Your task to perform on an android device: Go to Reddit.com Image 0: 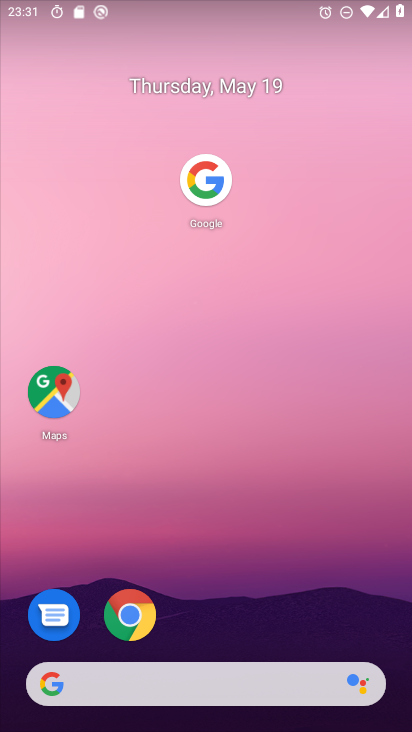
Step 0: drag from (238, 587) to (257, 111)
Your task to perform on an android device: Go to Reddit.com Image 1: 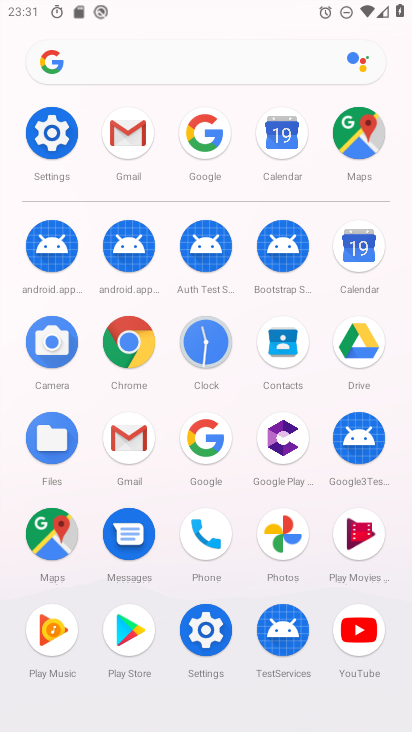
Step 1: click (205, 125)
Your task to perform on an android device: Go to Reddit.com Image 2: 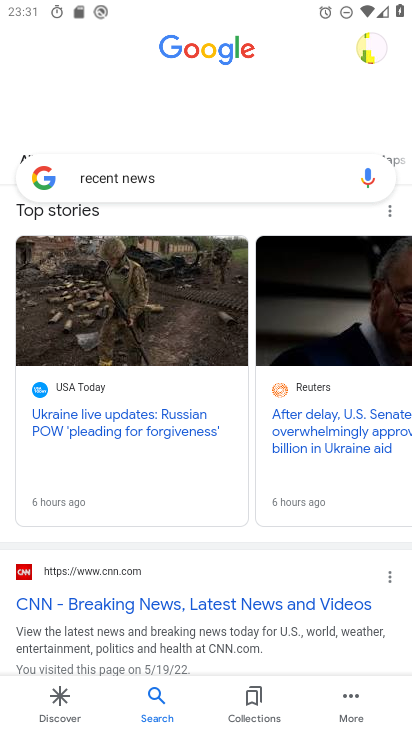
Step 2: click (195, 172)
Your task to perform on an android device: Go to Reddit.com Image 3: 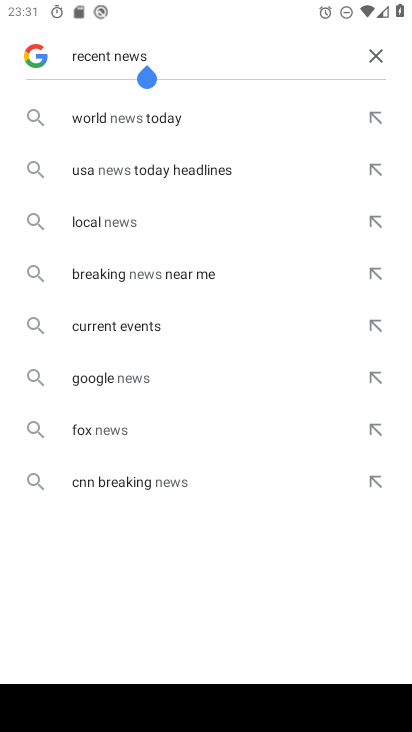
Step 3: click (379, 63)
Your task to perform on an android device: Go to Reddit.com Image 4: 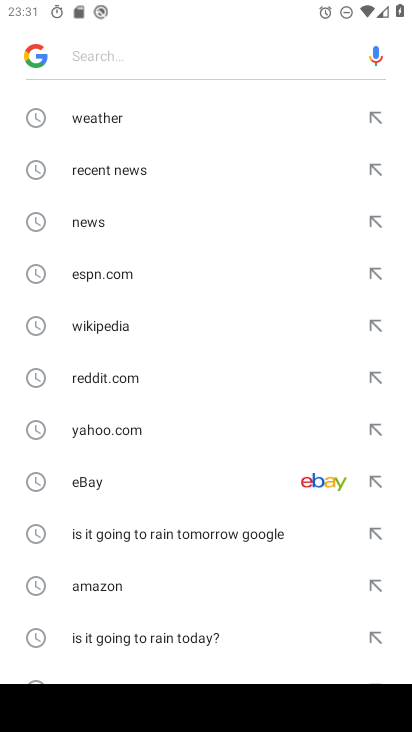
Step 4: click (128, 368)
Your task to perform on an android device: Go to Reddit.com Image 5: 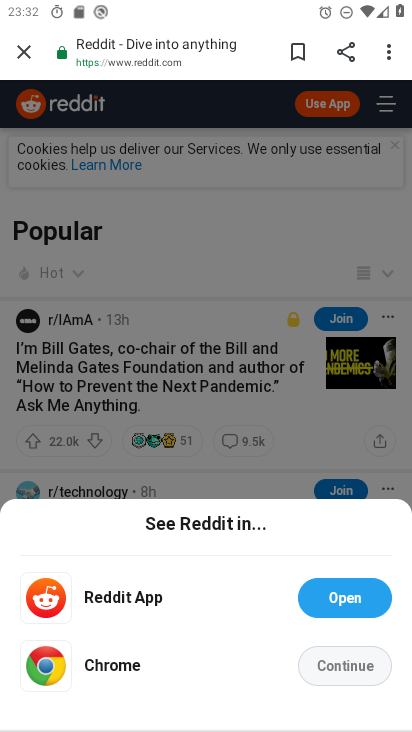
Step 5: task complete